Your task to perform on an android device: turn on notifications settings in the gmail app Image 0: 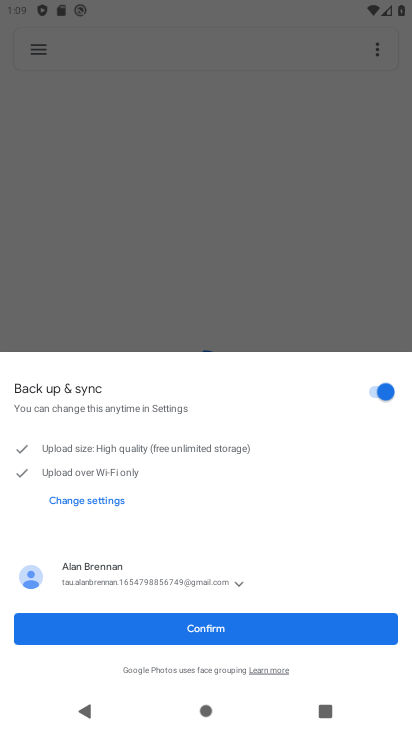
Step 0: press home button
Your task to perform on an android device: turn on notifications settings in the gmail app Image 1: 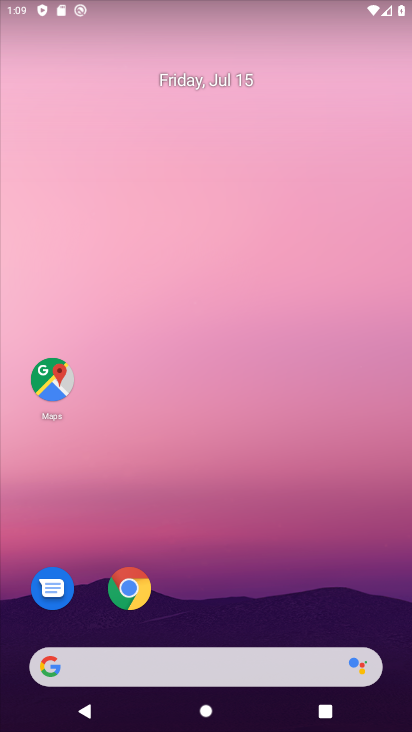
Step 1: drag from (238, 575) to (200, 0)
Your task to perform on an android device: turn on notifications settings in the gmail app Image 2: 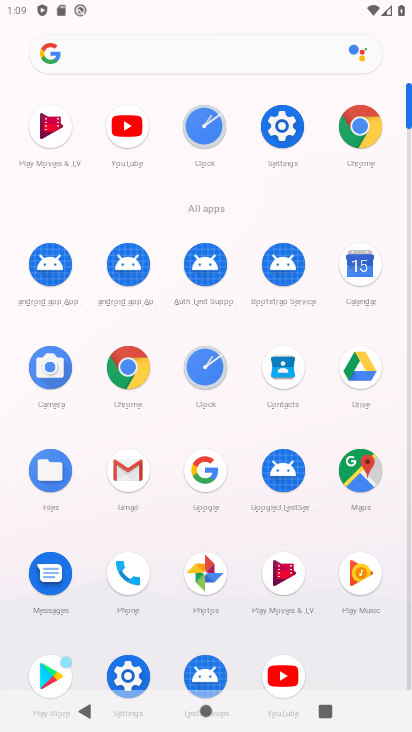
Step 2: click (131, 469)
Your task to perform on an android device: turn on notifications settings in the gmail app Image 3: 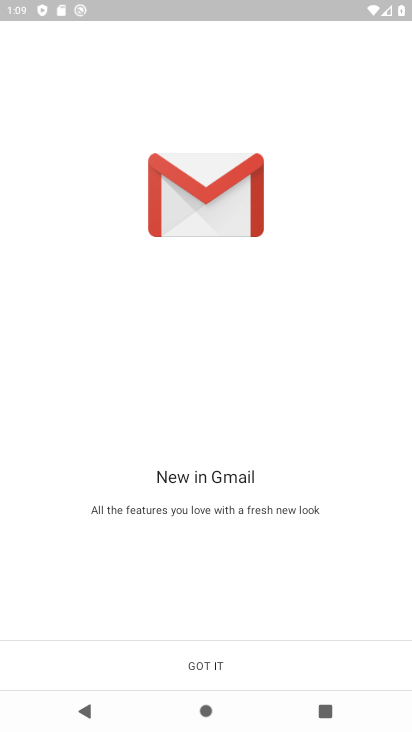
Step 3: click (186, 651)
Your task to perform on an android device: turn on notifications settings in the gmail app Image 4: 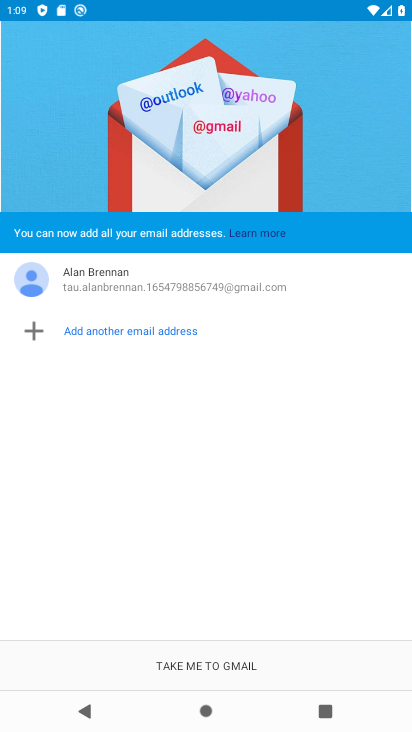
Step 4: click (196, 665)
Your task to perform on an android device: turn on notifications settings in the gmail app Image 5: 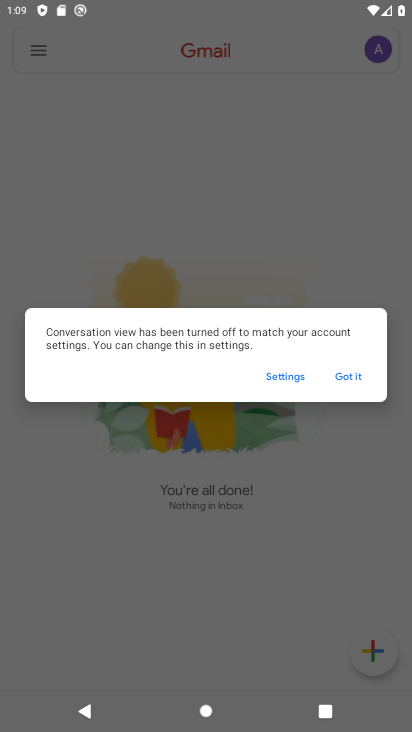
Step 5: click (358, 377)
Your task to perform on an android device: turn on notifications settings in the gmail app Image 6: 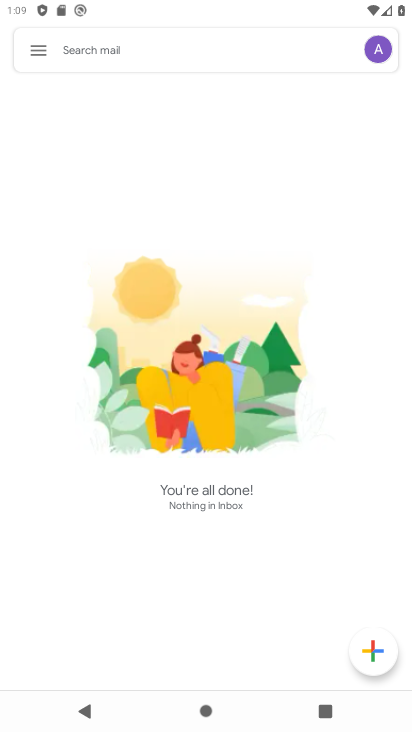
Step 6: click (29, 53)
Your task to perform on an android device: turn on notifications settings in the gmail app Image 7: 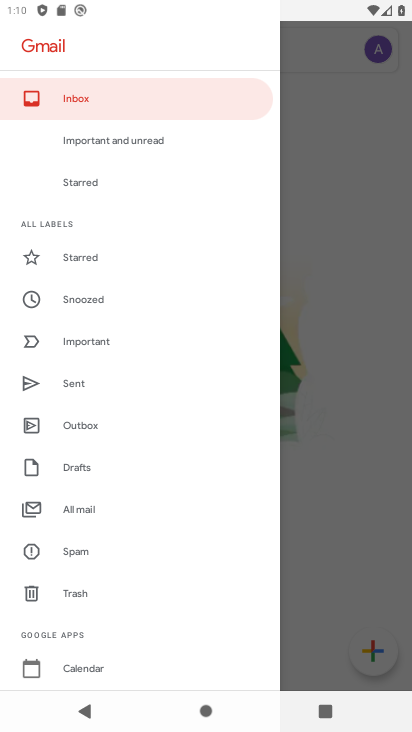
Step 7: drag from (108, 642) to (102, 319)
Your task to perform on an android device: turn on notifications settings in the gmail app Image 8: 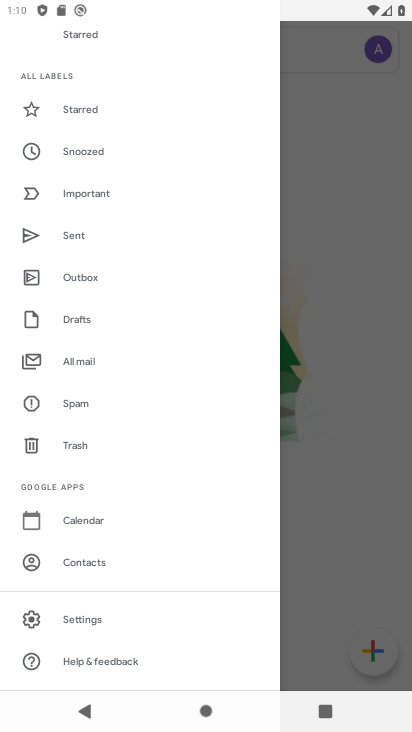
Step 8: click (76, 626)
Your task to perform on an android device: turn on notifications settings in the gmail app Image 9: 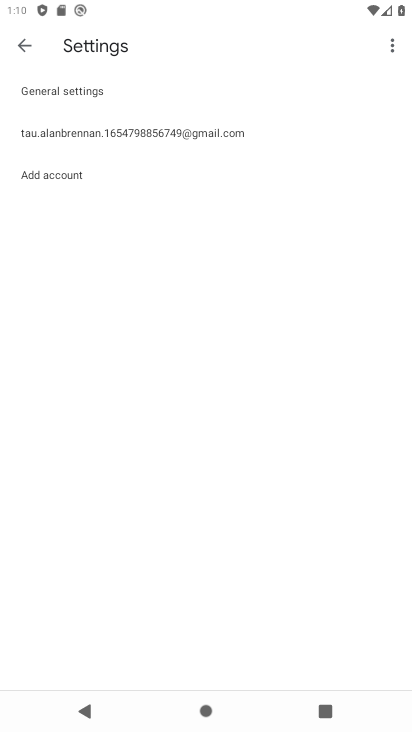
Step 9: click (237, 151)
Your task to perform on an android device: turn on notifications settings in the gmail app Image 10: 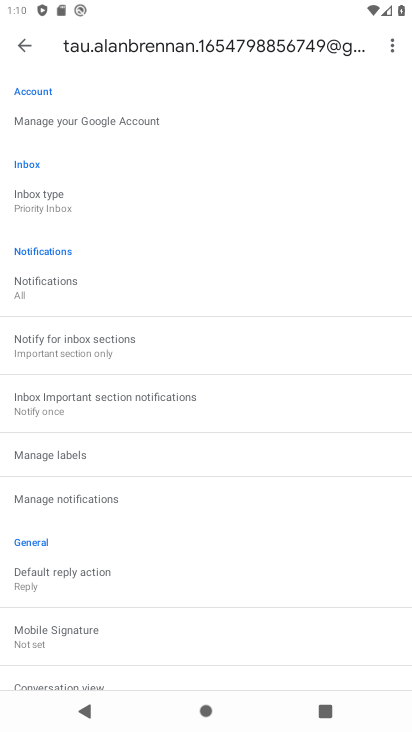
Step 10: click (89, 497)
Your task to perform on an android device: turn on notifications settings in the gmail app Image 11: 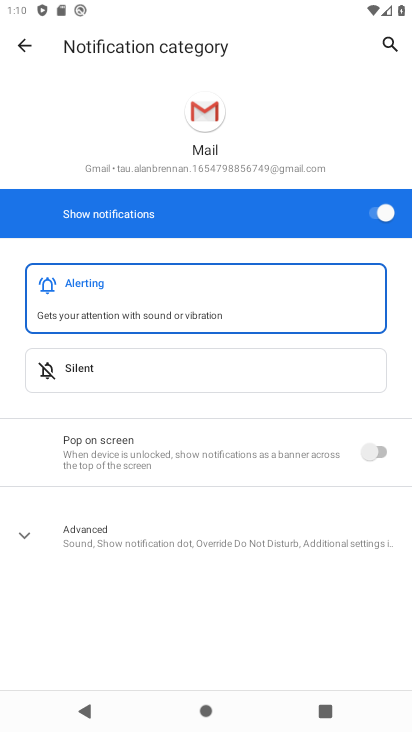
Step 11: task complete